Your task to perform on an android device: toggle pop-ups in chrome Image 0: 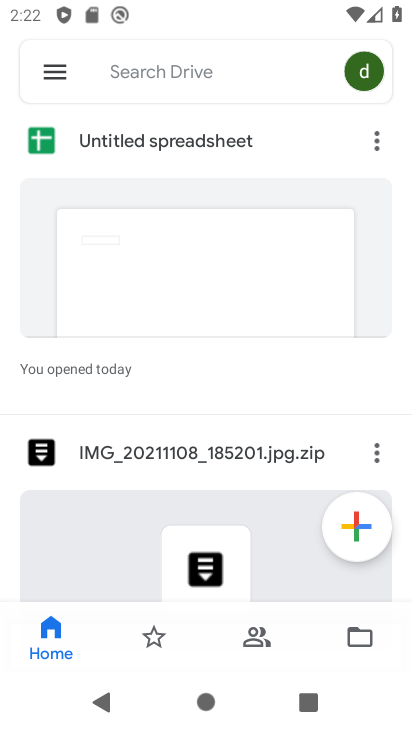
Step 0: press home button
Your task to perform on an android device: toggle pop-ups in chrome Image 1: 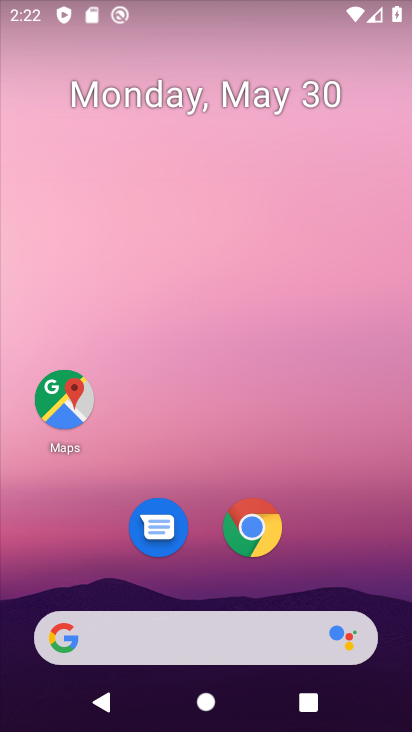
Step 1: drag from (286, 526) to (331, 66)
Your task to perform on an android device: toggle pop-ups in chrome Image 2: 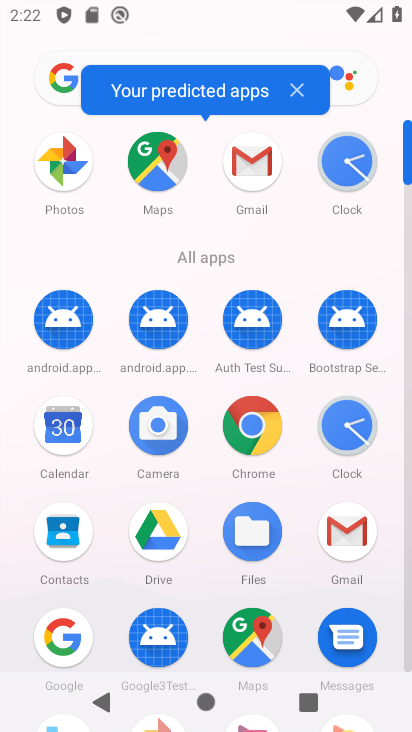
Step 2: click (247, 423)
Your task to perform on an android device: toggle pop-ups in chrome Image 3: 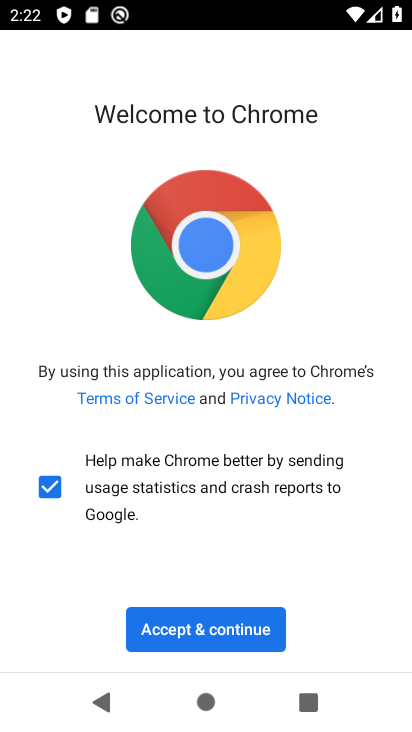
Step 3: click (253, 626)
Your task to perform on an android device: toggle pop-ups in chrome Image 4: 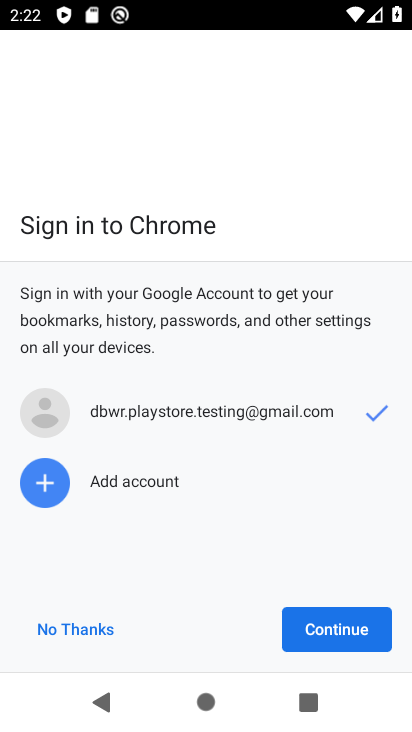
Step 4: click (365, 627)
Your task to perform on an android device: toggle pop-ups in chrome Image 5: 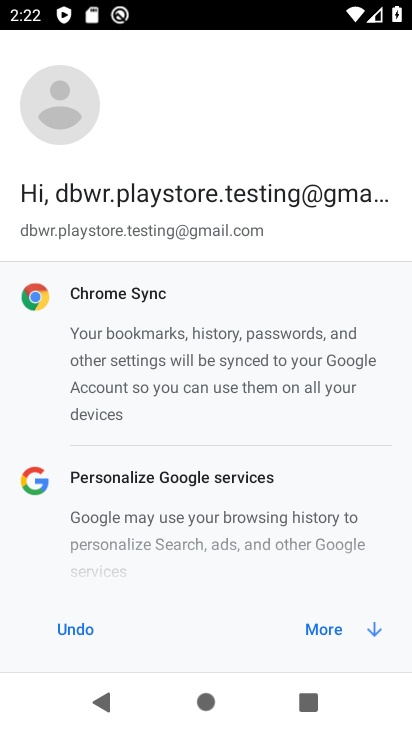
Step 5: click (365, 627)
Your task to perform on an android device: toggle pop-ups in chrome Image 6: 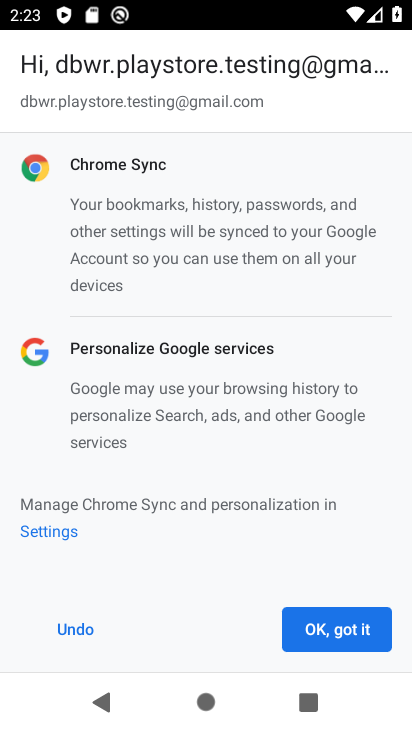
Step 6: click (365, 627)
Your task to perform on an android device: toggle pop-ups in chrome Image 7: 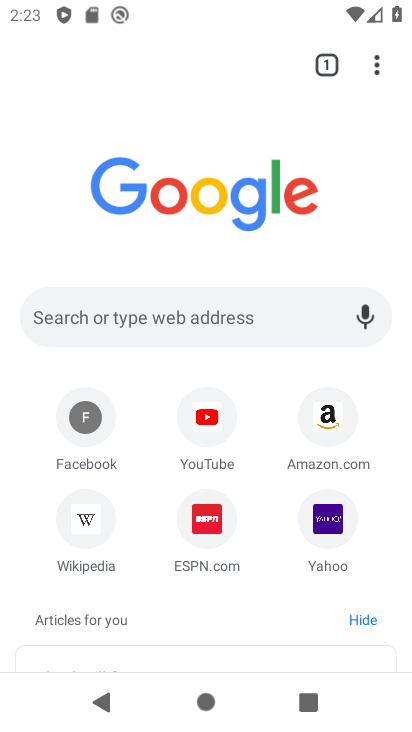
Step 7: drag from (374, 64) to (173, 532)
Your task to perform on an android device: toggle pop-ups in chrome Image 8: 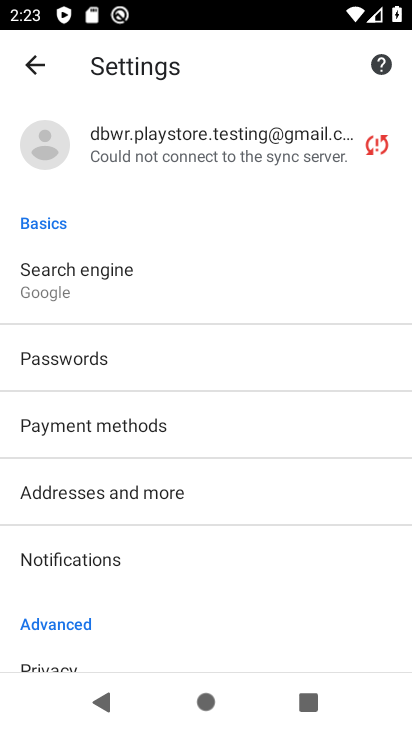
Step 8: drag from (204, 638) to (223, 353)
Your task to perform on an android device: toggle pop-ups in chrome Image 9: 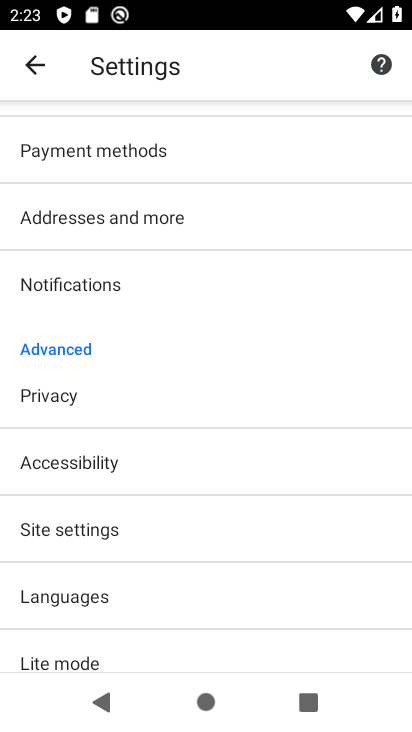
Step 9: click (108, 528)
Your task to perform on an android device: toggle pop-ups in chrome Image 10: 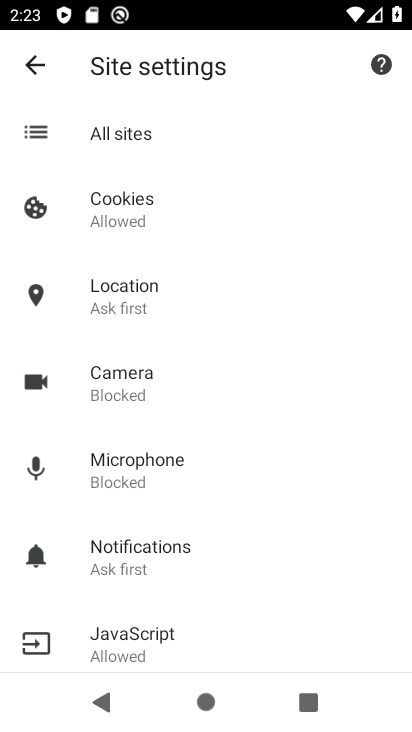
Step 10: drag from (230, 618) to (264, 259)
Your task to perform on an android device: toggle pop-ups in chrome Image 11: 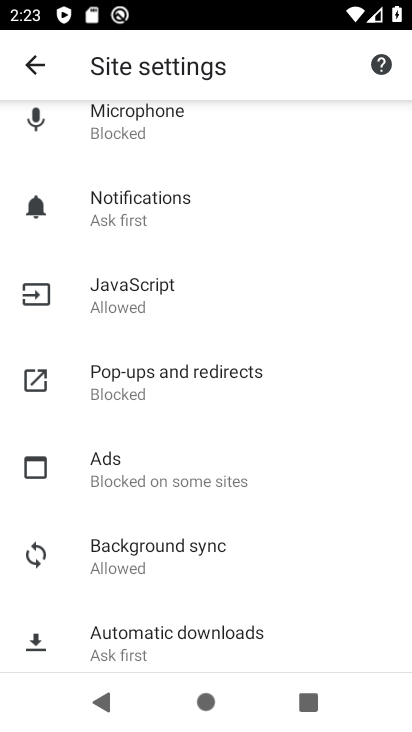
Step 11: click (220, 368)
Your task to perform on an android device: toggle pop-ups in chrome Image 12: 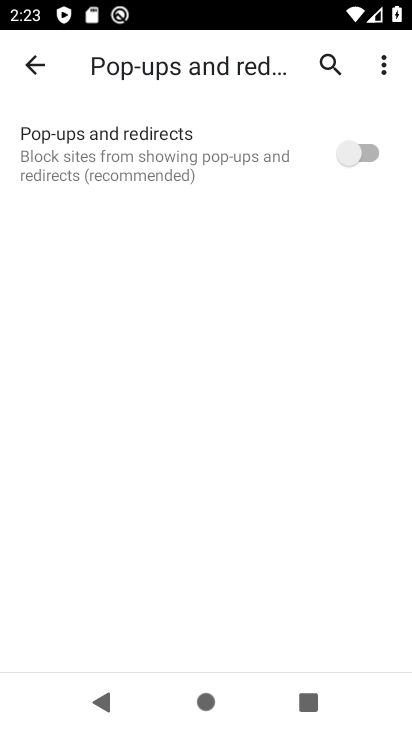
Step 12: click (367, 146)
Your task to perform on an android device: toggle pop-ups in chrome Image 13: 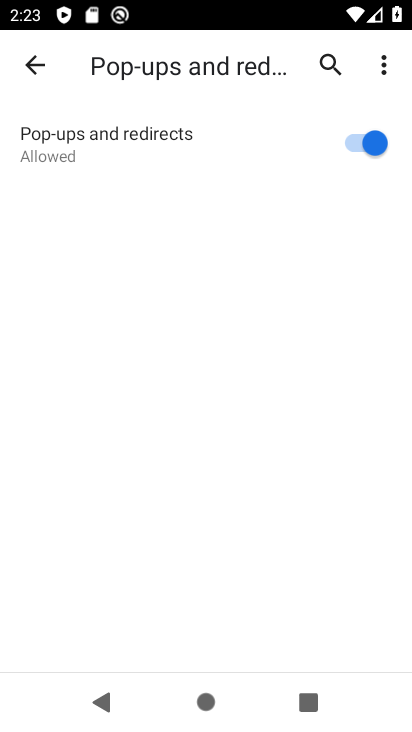
Step 13: task complete